Your task to perform on an android device: Open Android settings Image 0: 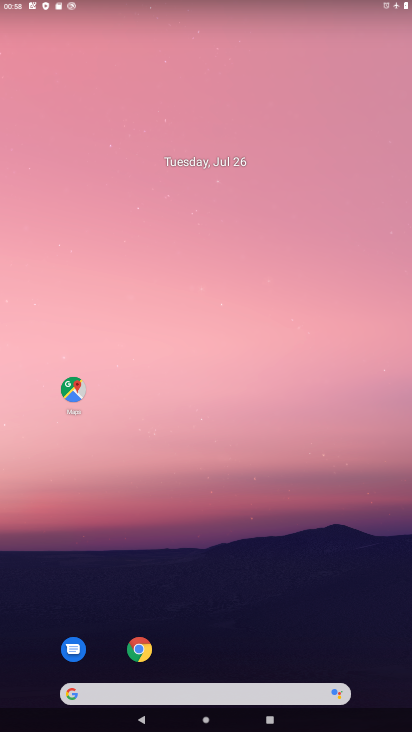
Step 0: drag from (225, 727) to (224, 298)
Your task to perform on an android device: Open Android settings Image 1: 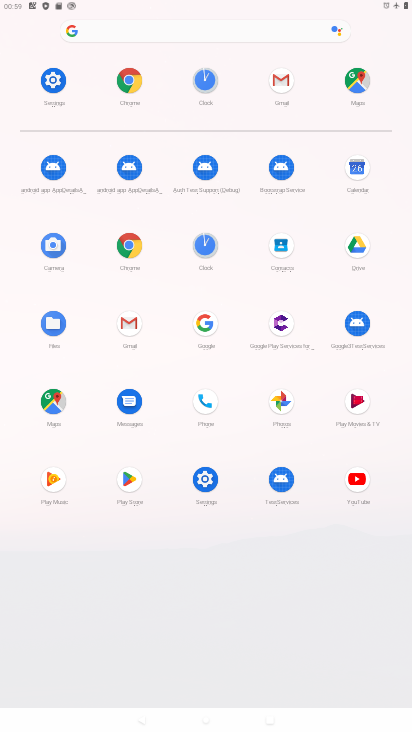
Step 1: click (54, 85)
Your task to perform on an android device: Open Android settings Image 2: 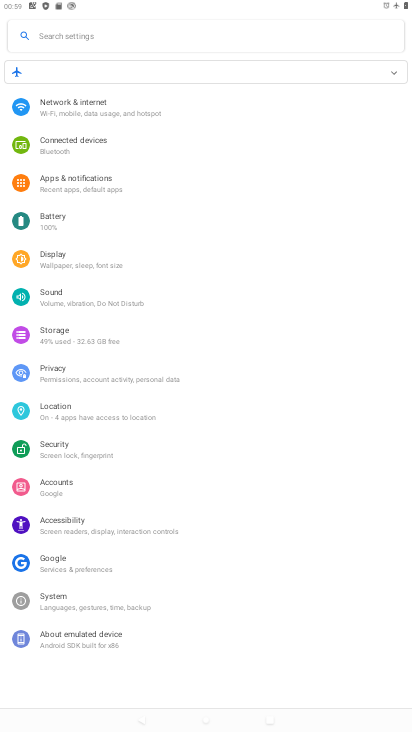
Step 2: task complete